Your task to perform on an android device: open device folders in google photos Image 0: 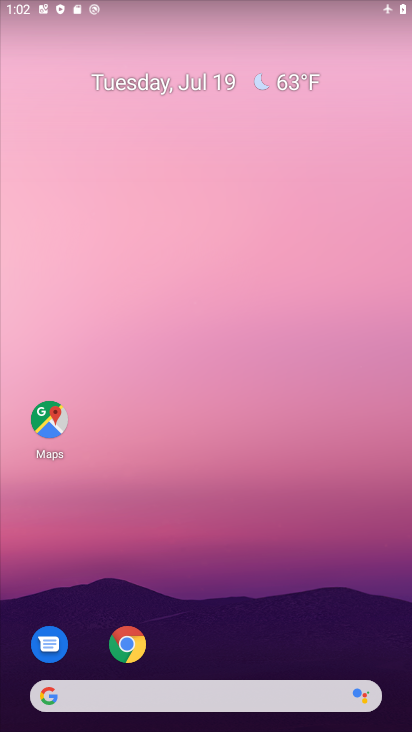
Step 0: drag from (205, 726) to (175, 139)
Your task to perform on an android device: open device folders in google photos Image 1: 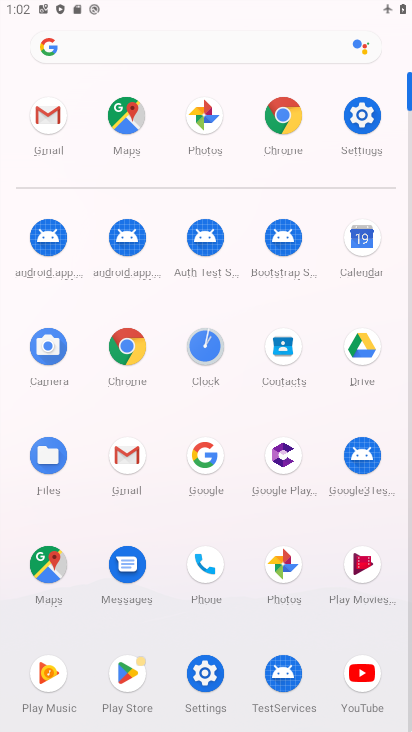
Step 1: click (287, 565)
Your task to perform on an android device: open device folders in google photos Image 2: 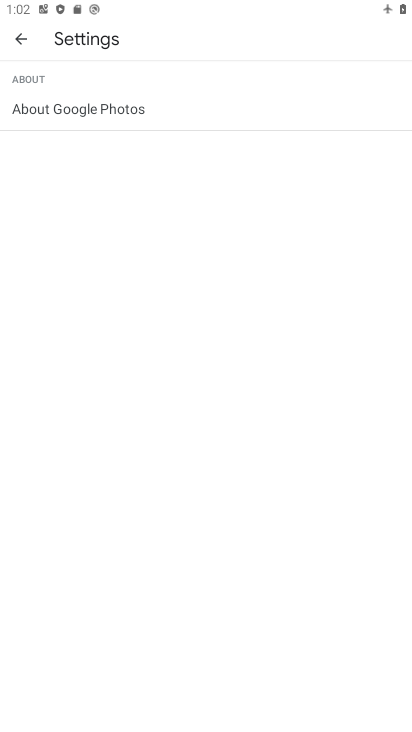
Step 2: click (23, 34)
Your task to perform on an android device: open device folders in google photos Image 3: 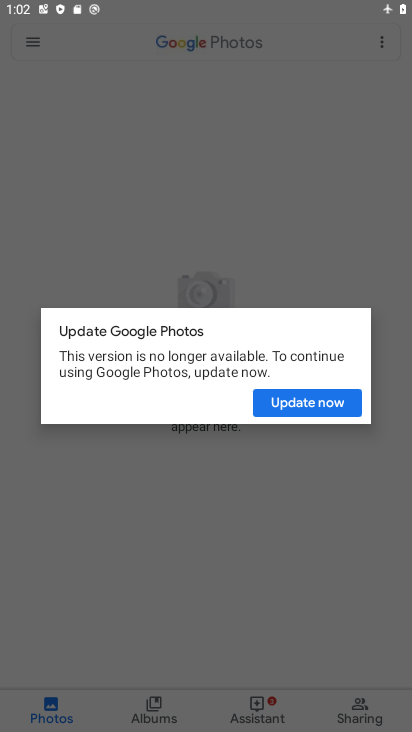
Step 3: task complete